Your task to perform on an android device: Search for vegetarian restaurants on Maps Image 0: 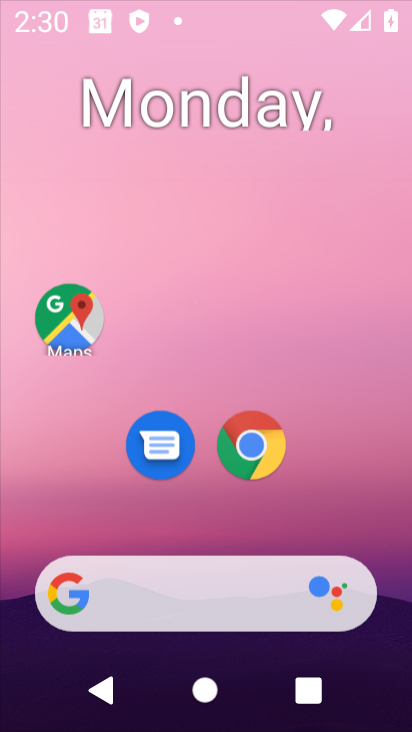
Step 0: click (327, 103)
Your task to perform on an android device: Search for vegetarian restaurants on Maps Image 1: 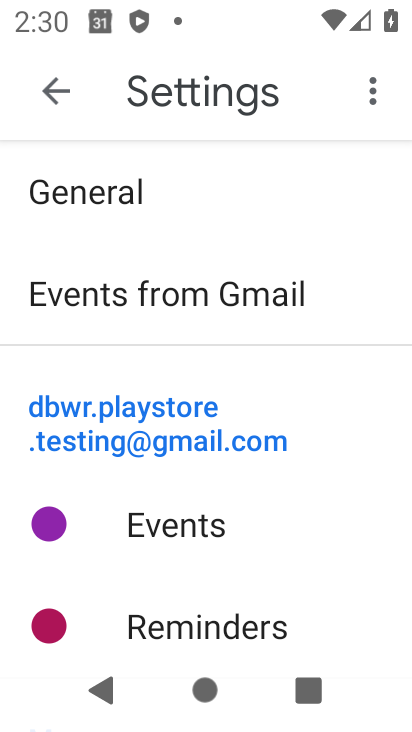
Step 1: press home button
Your task to perform on an android device: Search for vegetarian restaurants on Maps Image 2: 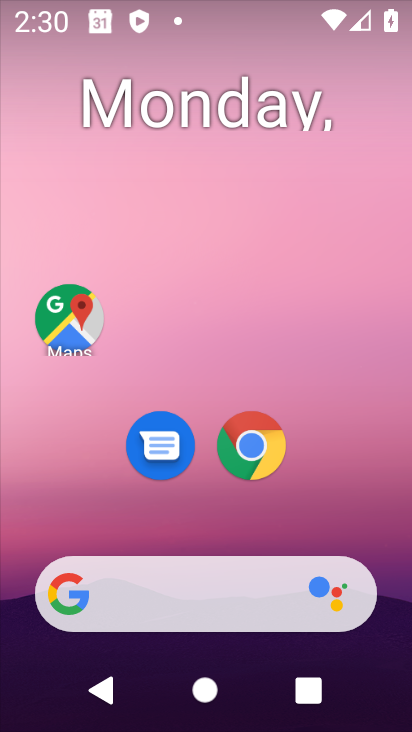
Step 2: click (51, 342)
Your task to perform on an android device: Search for vegetarian restaurants on Maps Image 3: 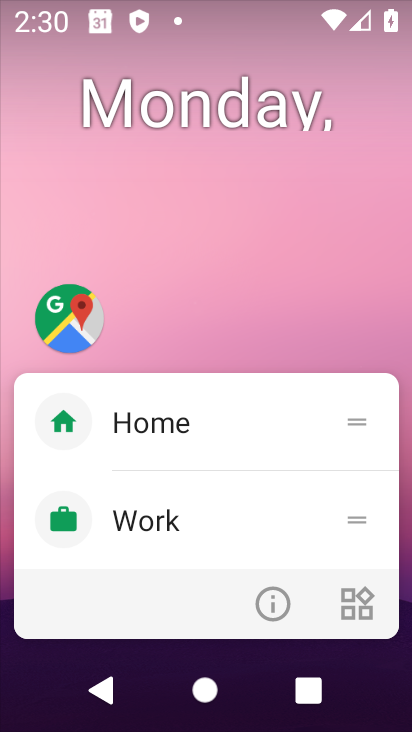
Step 3: click (68, 334)
Your task to perform on an android device: Search for vegetarian restaurants on Maps Image 4: 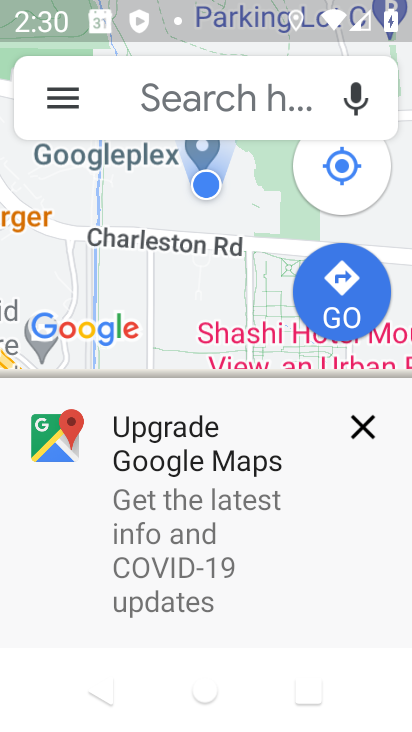
Step 4: click (245, 97)
Your task to perform on an android device: Search for vegetarian restaurants on Maps Image 5: 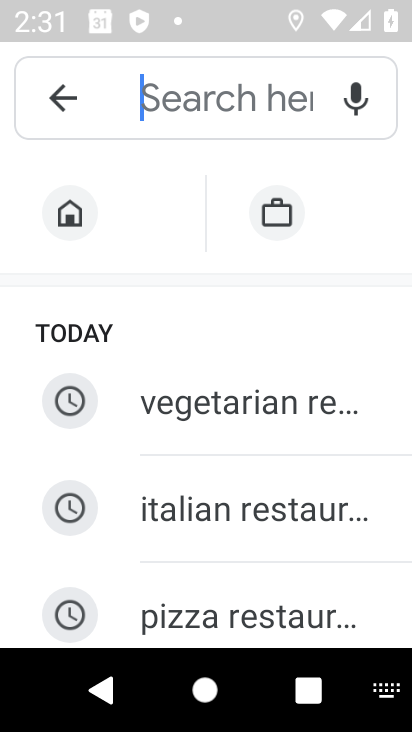
Step 5: click (220, 410)
Your task to perform on an android device: Search for vegetarian restaurants on Maps Image 6: 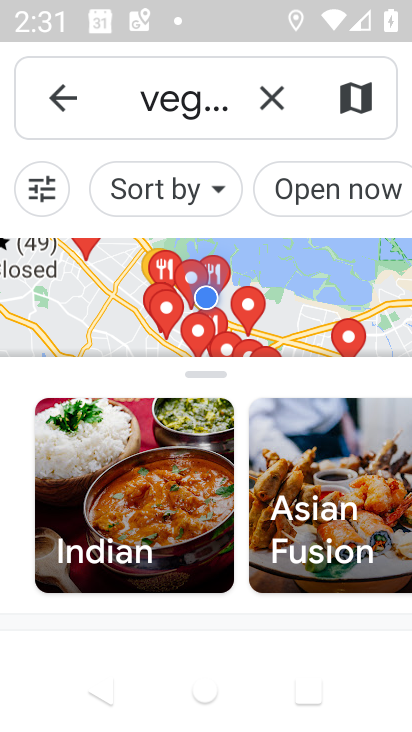
Step 6: task complete